Your task to perform on an android device: toggle location history Image 0: 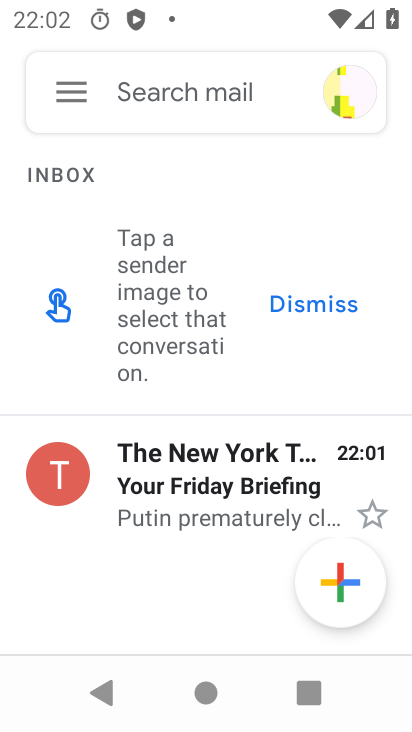
Step 0: press home button
Your task to perform on an android device: toggle location history Image 1: 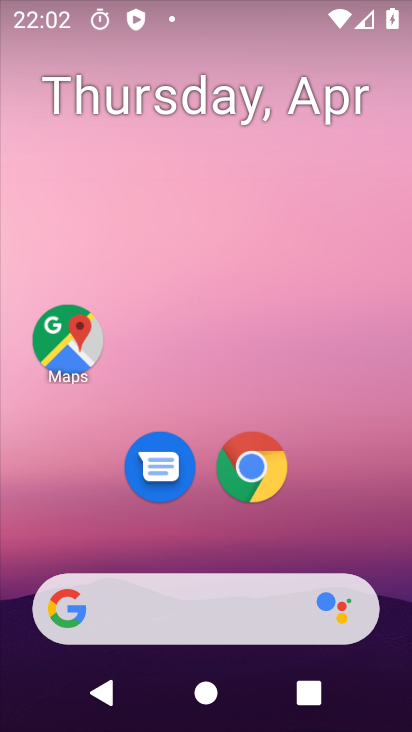
Step 1: drag from (222, 545) to (199, 10)
Your task to perform on an android device: toggle location history Image 2: 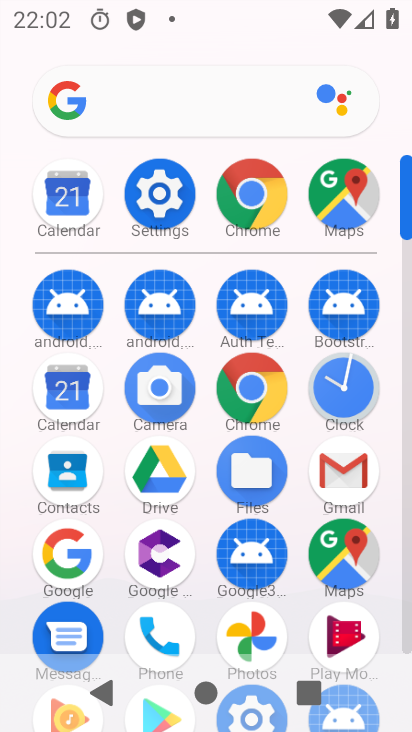
Step 2: click (143, 204)
Your task to perform on an android device: toggle location history Image 3: 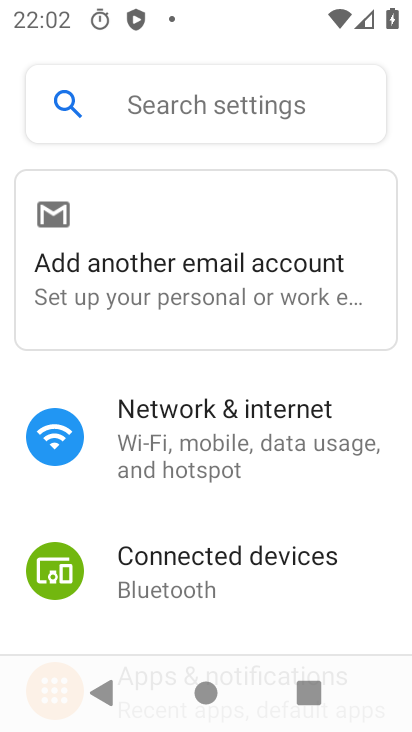
Step 3: drag from (214, 504) to (215, 108)
Your task to perform on an android device: toggle location history Image 4: 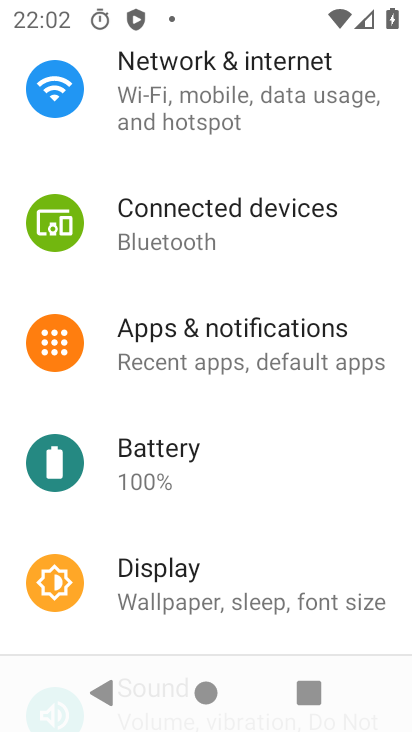
Step 4: drag from (257, 538) to (236, 206)
Your task to perform on an android device: toggle location history Image 5: 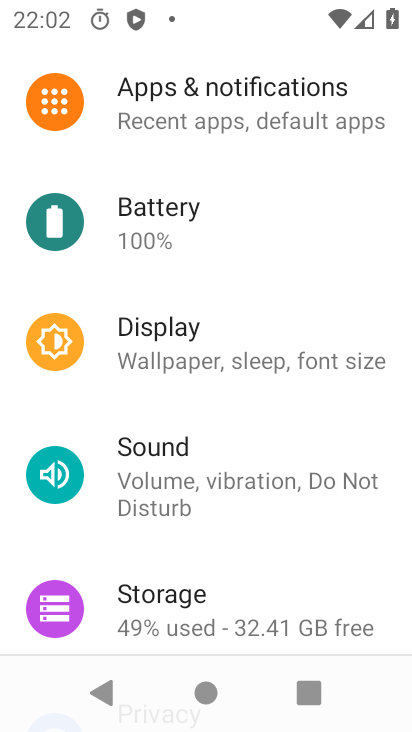
Step 5: drag from (255, 595) to (227, 153)
Your task to perform on an android device: toggle location history Image 6: 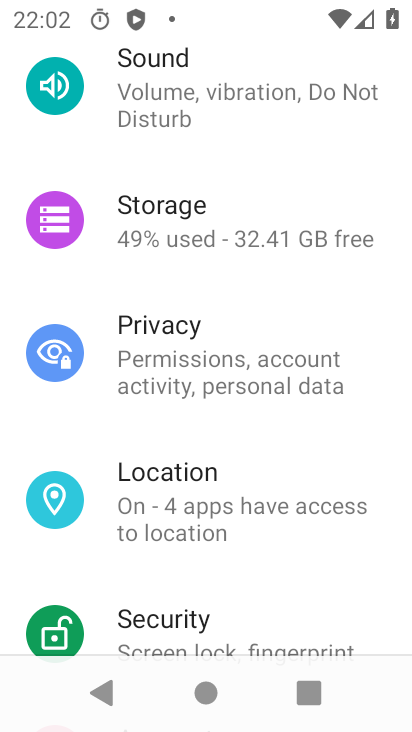
Step 6: click (198, 469)
Your task to perform on an android device: toggle location history Image 7: 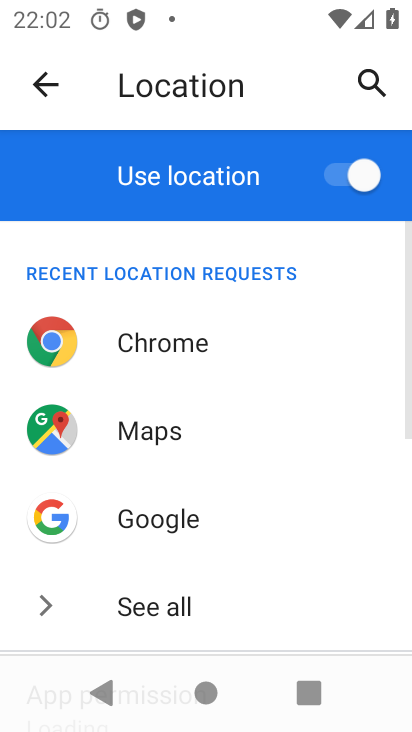
Step 7: drag from (250, 547) to (234, 184)
Your task to perform on an android device: toggle location history Image 8: 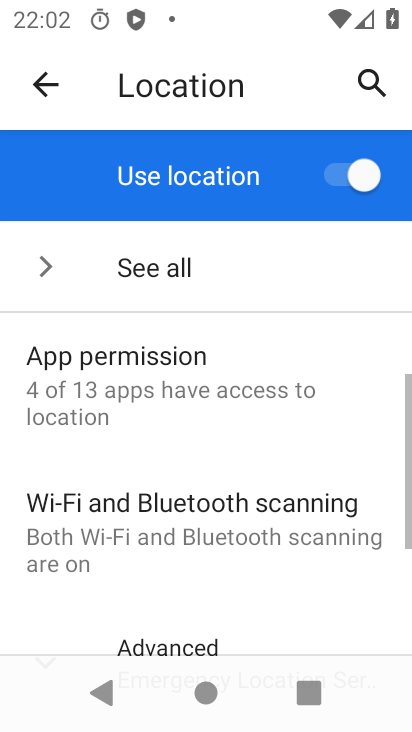
Step 8: drag from (208, 578) to (192, 254)
Your task to perform on an android device: toggle location history Image 9: 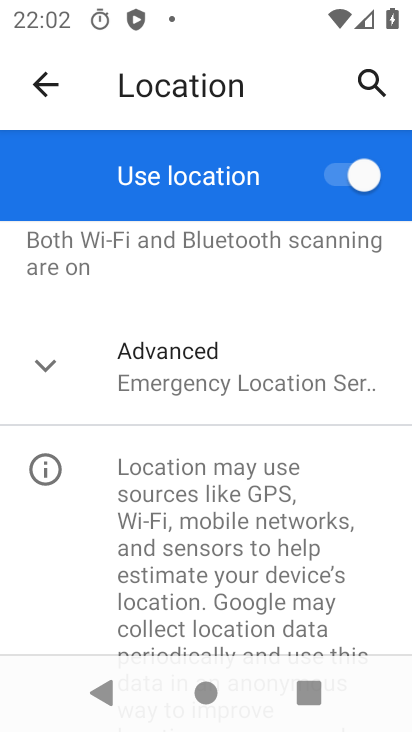
Step 9: click (199, 392)
Your task to perform on an android device: toggle location history Image 10: 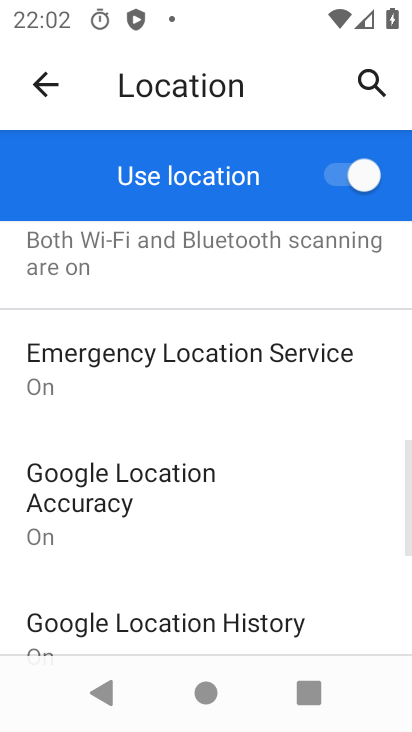
Step 10: drag from (233, 580) to (221, 319)
Your task to perform on an android device: toggle location history Image 11: 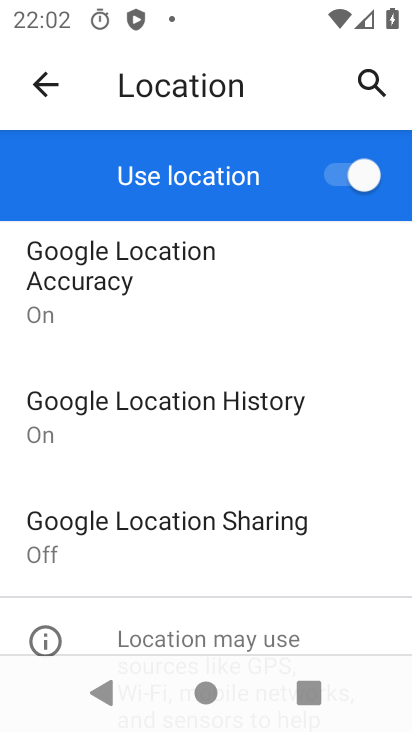
Step 11: click (220, 412)
Your task to perform on an android device: toggle location history Image 12: 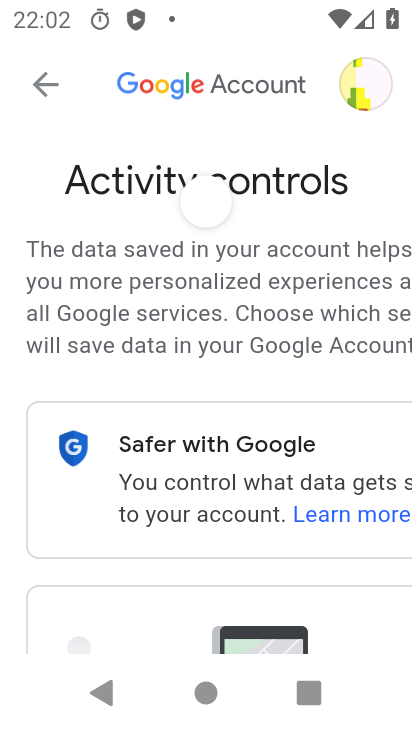
Step 12: drag from (296, 557) to (162, 182)
Your task to perform on an android device: toggle location history Image 13: 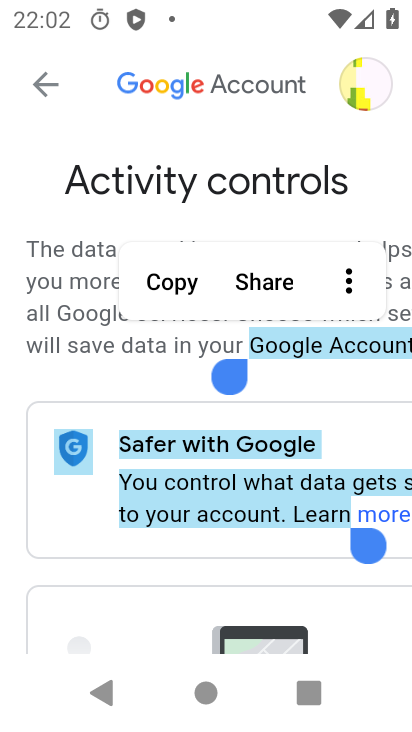
Step 13: drag from (264, 594) to (116, 138)
Your task to perform on an android device: toggle location history Image 14: 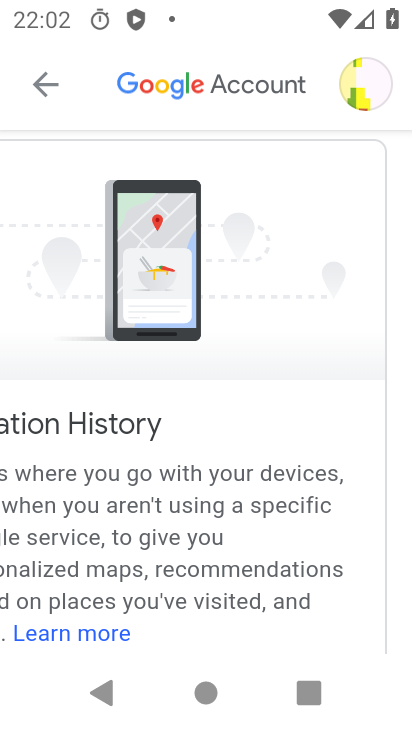
Step 14: drag from (323, 559) to (240, 187)
Your task to perform on an android device: toggle location history Image 15: 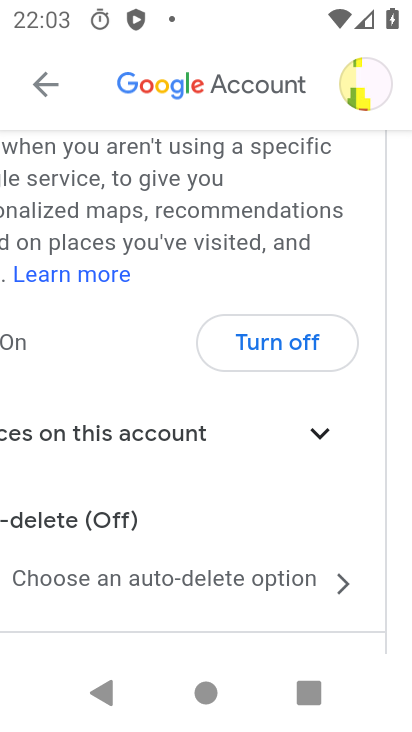
Step 15: click (280, 357)
Your task to perform on an android device: toggle location history Image 16: 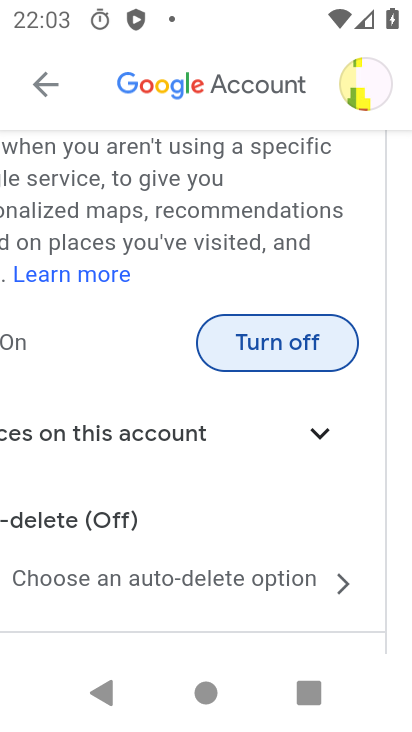
Step 16: click (275, 347)
Your task to perform on an android device: toggle location history Image 17: 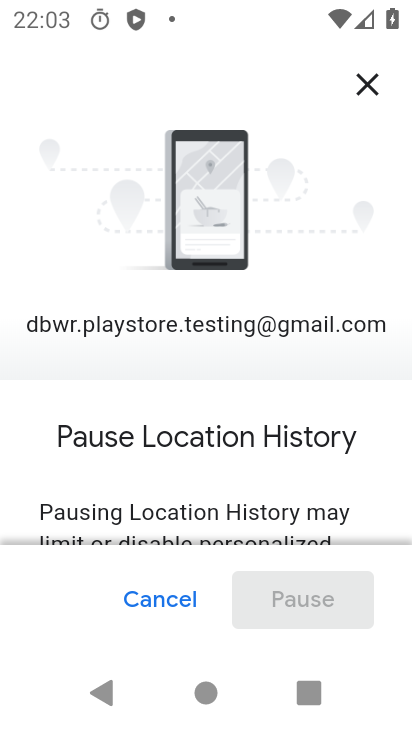
Step 17: drag from (302, 535) to (235, 150)
Your task to perform on an android device: toggle location history Image 18: 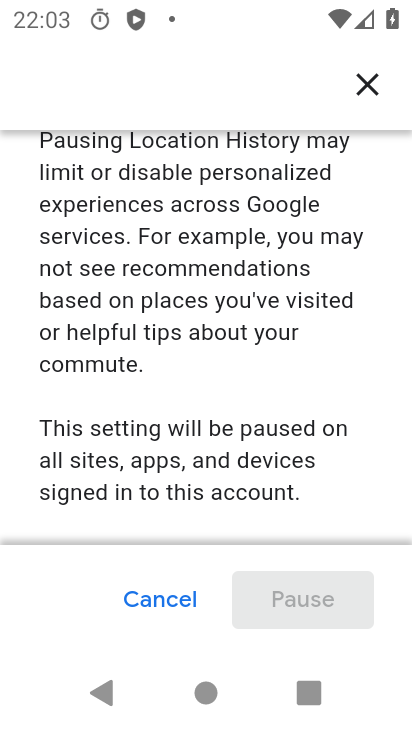
Step 18: drag from (292, 420) to (222, 33)
Your task to perform on an android device: toggle location history Image 19: 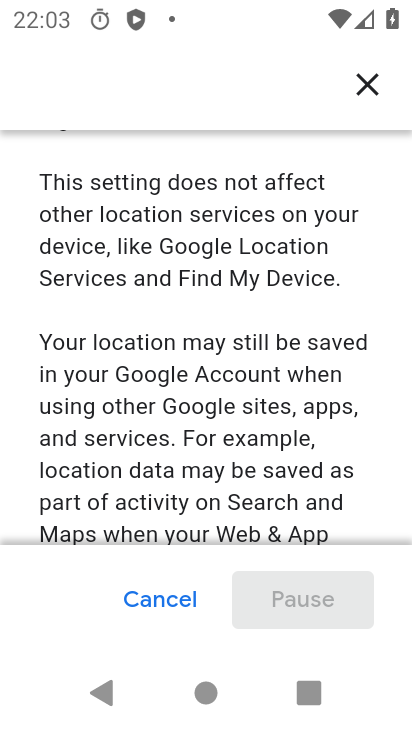
Step 19: drag from (281, 470) to (183, 50)
Your task to perform on an android device: toggle location history Image 20: 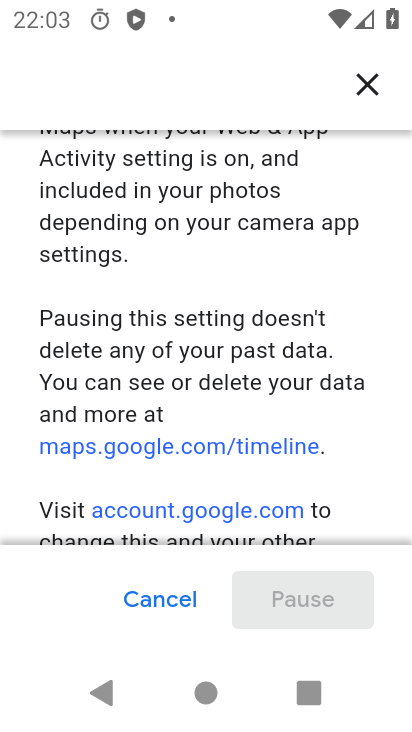
Step 20: drag from (263, 425) to (216, 52)
Your task to perform on an android device: toggle location history Image 21: 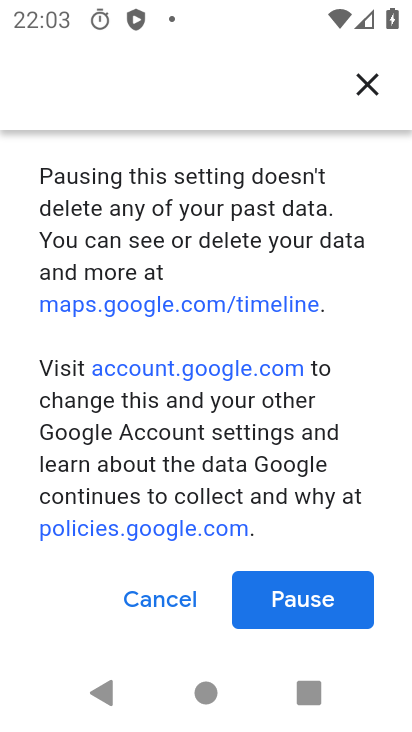
Step 21: click (317, 583)
Your task to perform on an android device: toggle location history Image 22: 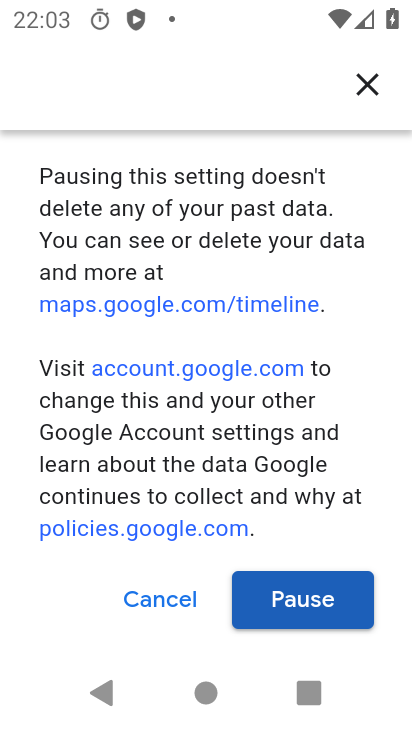
Step 22: click (339, 616)
Your task to perform on an android device: toggle location history Image 23: 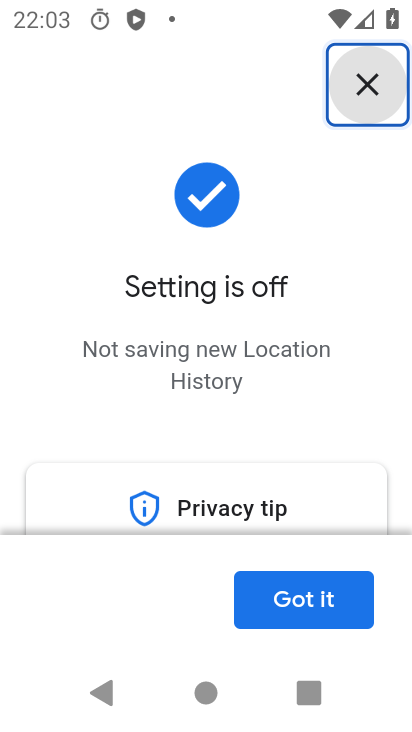
Step 23: click (338, 616)
Your task to perform on an android device: toggle location history Image 24: 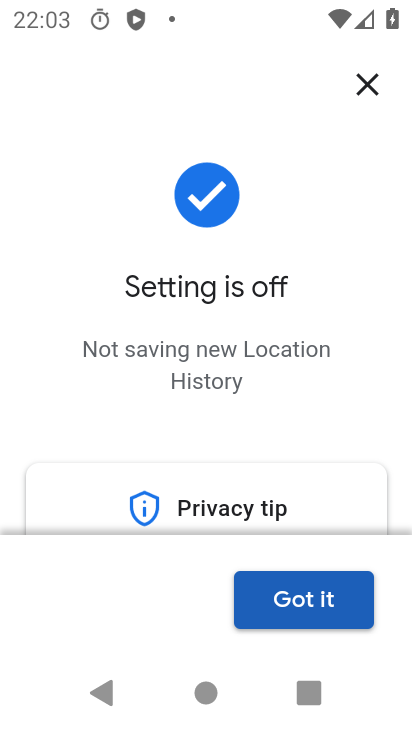
Step 24: task complete